Your task to perform on an android device: Go to Reddit.com Image 0: 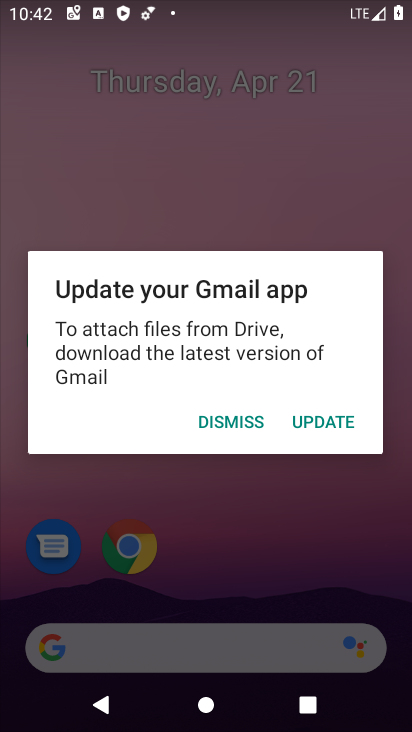
Step 0: press home button
Your task to perform on an android device: Go to Reddit.com Image 1: 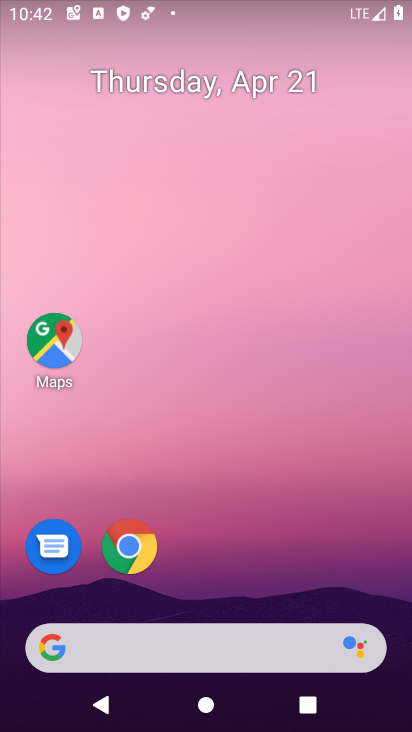
Step 1: click (130, 546)
Your task to perform on an android device: Go to Reddit.com Image 2: 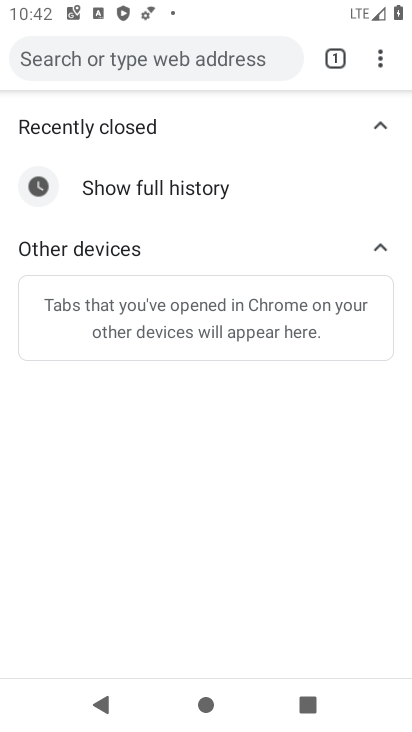
Step 2: click (101, 56)
Your task to perform on an android device: Go to Reddit.com Image 3: 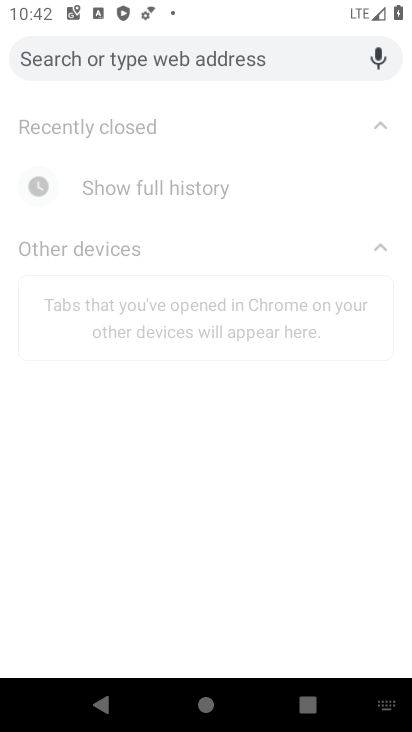
Step 3: type "reddit.com"
Your task to perform on an android device: Go to Reddit.com Image 4: 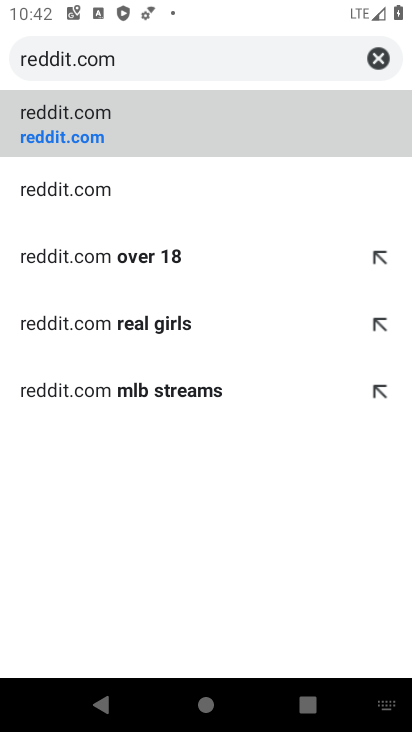
Step 4: click (45, 109)
Your task to perform on an android device: Go to Reddit.com Image 5: 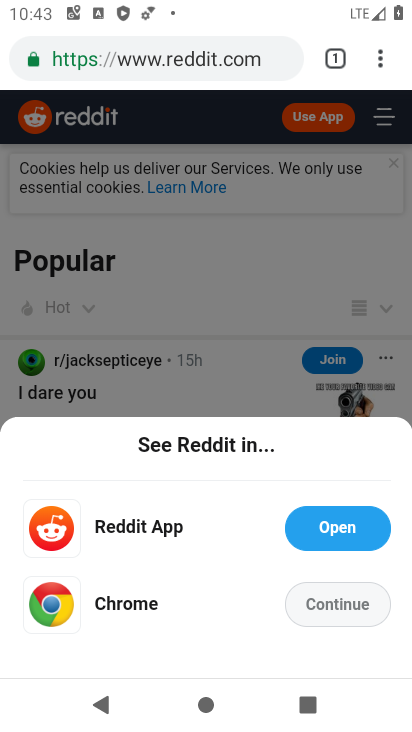
Step 5: task complete